Your task to perform on an android device: turn on sleep mode Image 0: 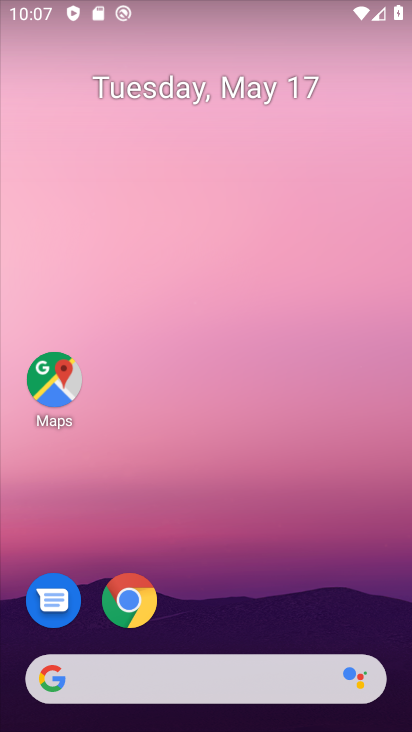
Step 0: drag from (351, 603) to (352, 220)
Your task to perform on an android device: turn on sleep mode Image 1: 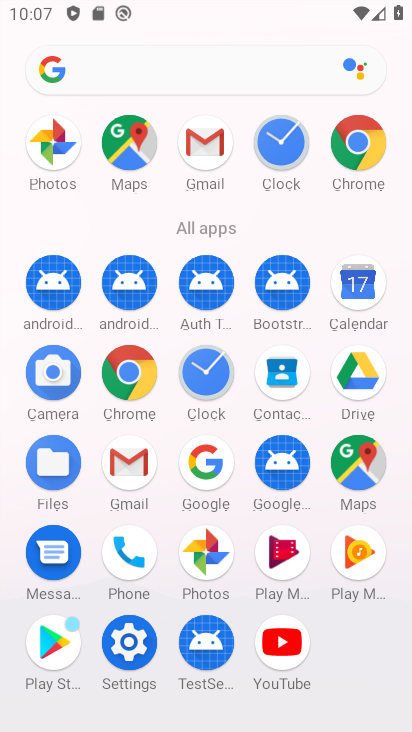
Step 1: click (126, 650)
Your task to perform on an android device: turn on sleep mode Image 2: 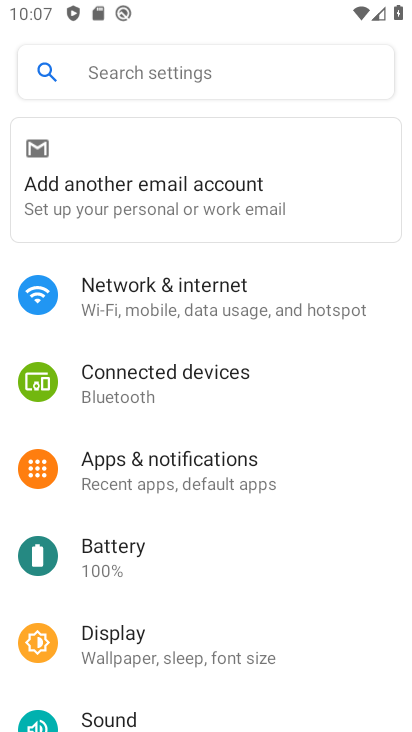
Step 2: click (273, 658)
Your task to perform on an android device: turn on sleep mode Image 3: 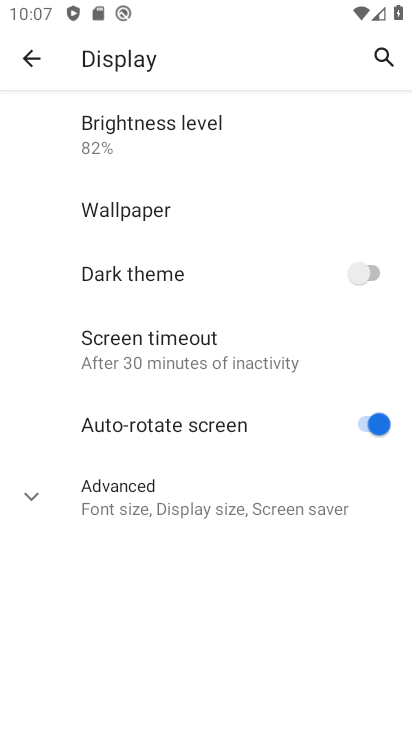
Step 3: click (271, 511)
Your task to perform on an android device: turn on sleep mode Image 4: 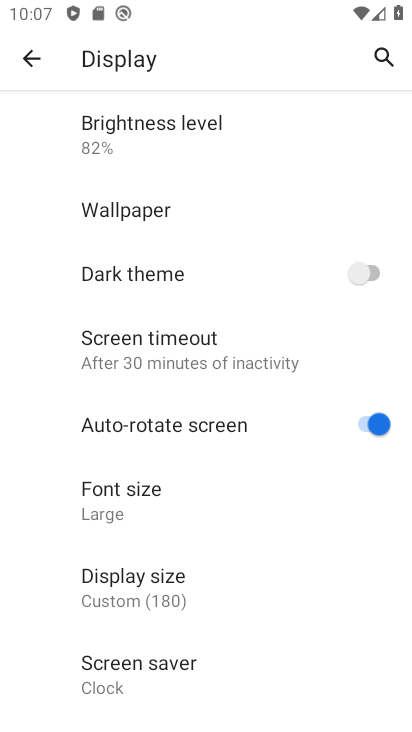
Step 4: task complete